Your task to perform on an android device: add a contact Image 0: 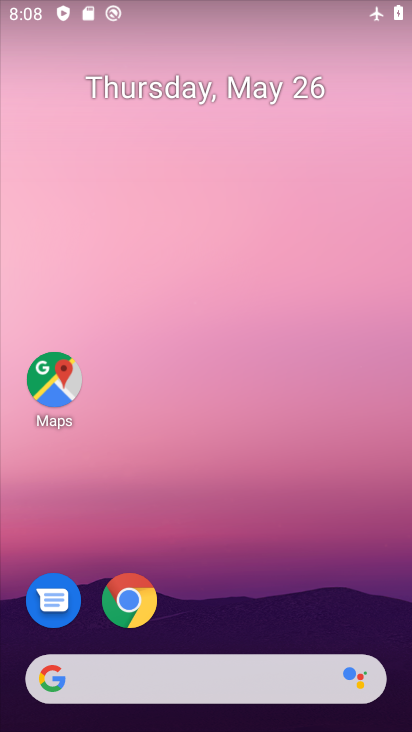
Step 0: drag from (218, 641) to (220, 79)
Your task to perform on an android device: add a contact Image 1: 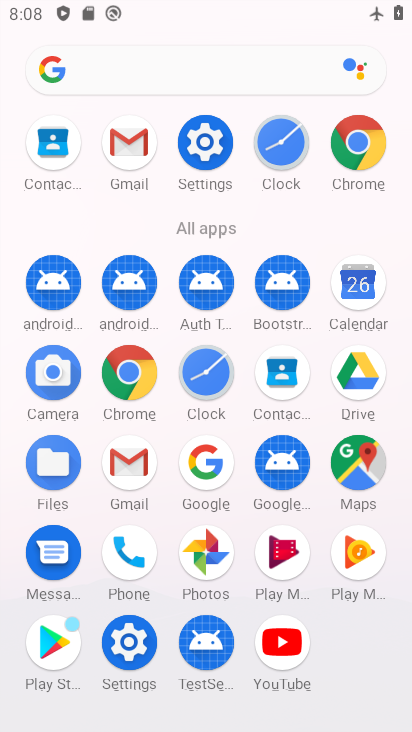
Step 1: click (299, 363)
Your task to perform on an android device: add a contact Image 2: 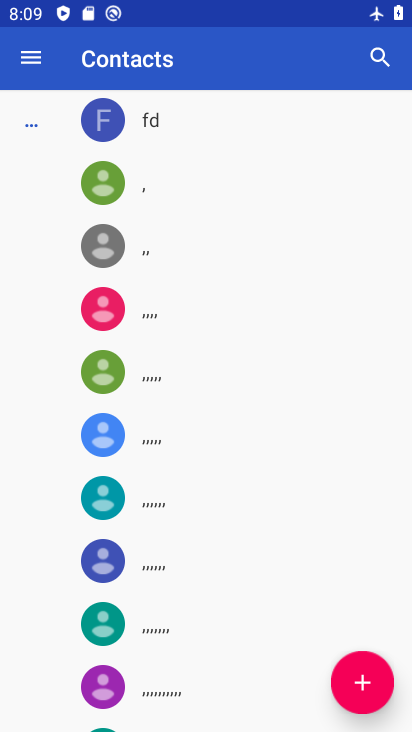
Step 2: click (372, 682)
Your task to perform on an android device: add a contact Image 3: 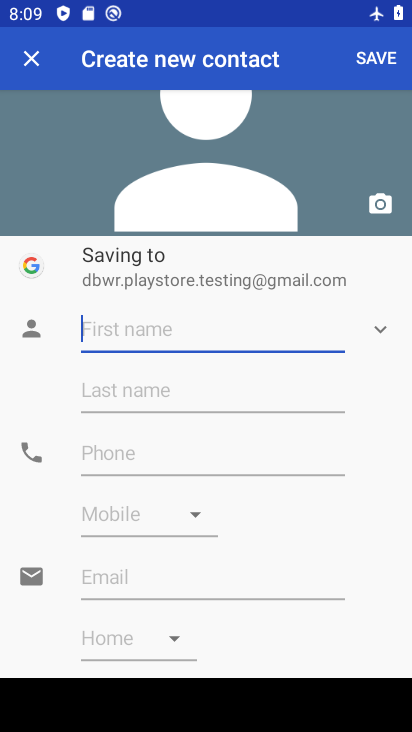
Step 3: type "iuhgfd"
Your task to perform on an android device: add a contact Image 4: 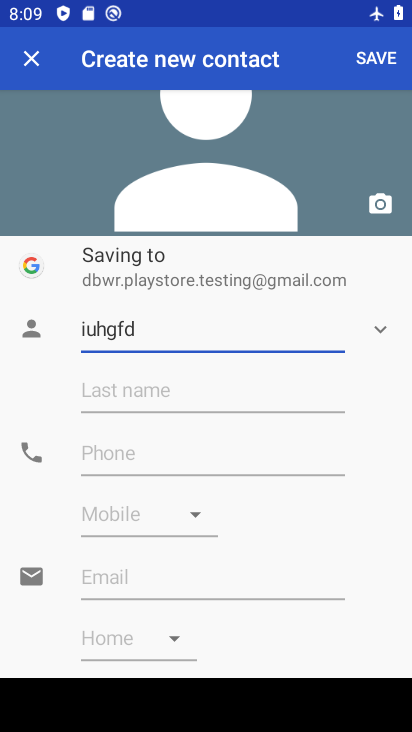
Step 4: click (396, 58)
Your task to perform on an android device: add a contact Image 5: 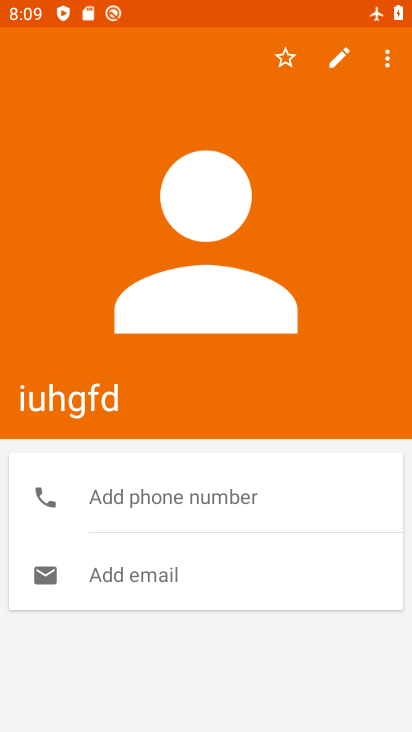
Step 5: task complete